Your task to perform on an android device: toggle airplane mode Image 0: 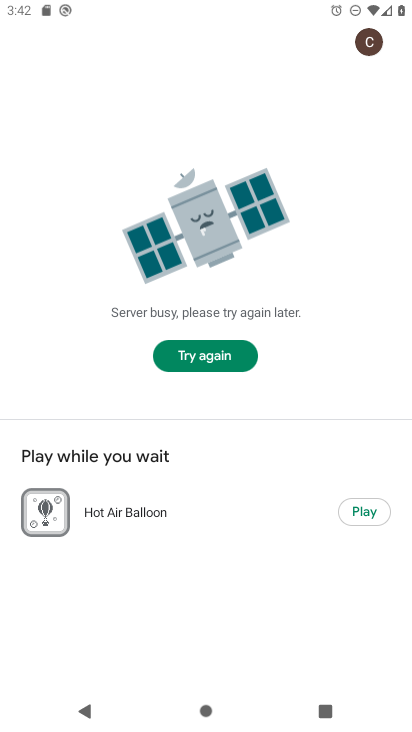
Step 0: press home button
Your task to perform on an android device: toggle airplane mode Image 1: 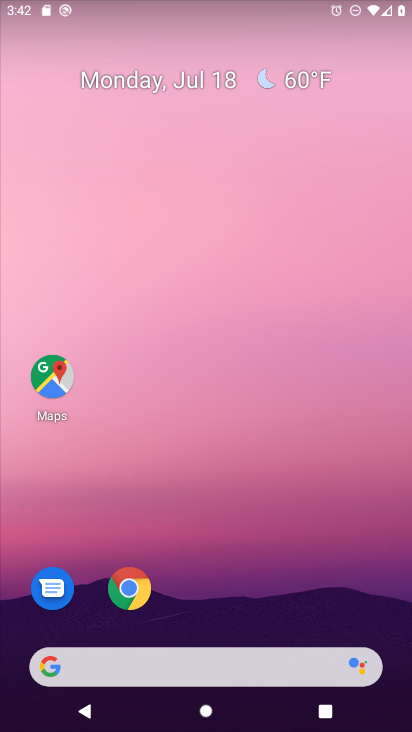
Step 1: drag from (216, 10) to (257, 526)
Your task to perform on an android device: toggle airplane mode Image 2: 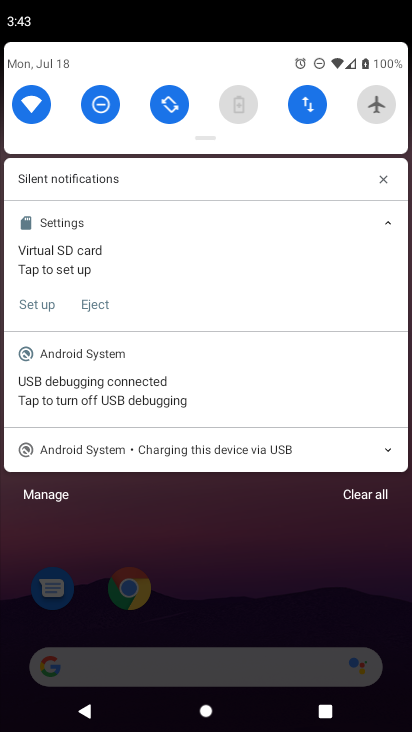
Step 2: click (375, 102)
Your task to perform on an android device: toggle airplane mode Image 3: 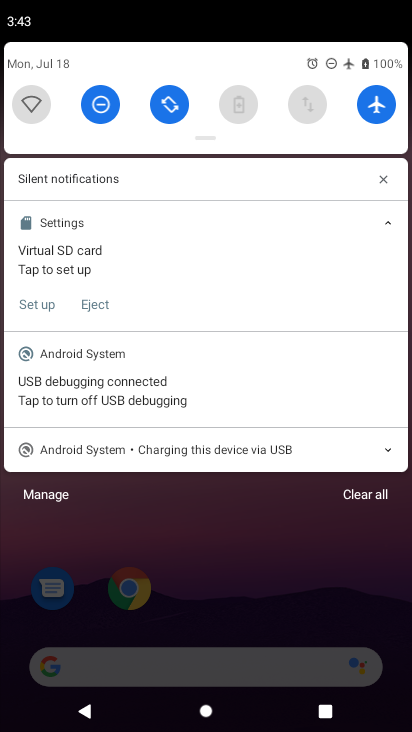
Step 3: task complete